Your task to perform on an android device: turn on data saver in the chrome app Image 0: 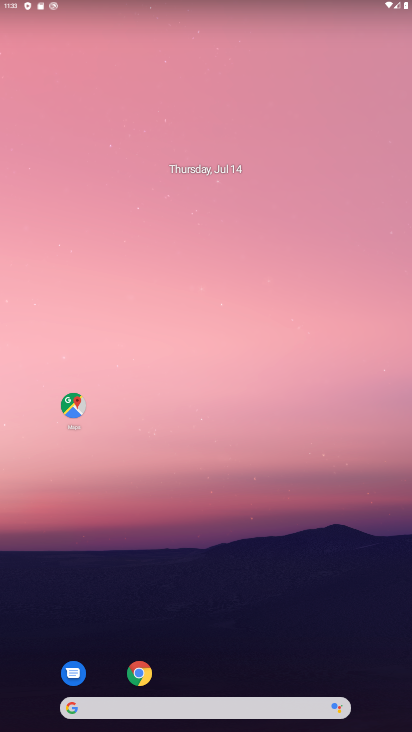
Step 0: click (137, 674)
Your task to perform on an android device: turn on data saver in the chrome app Image 1: 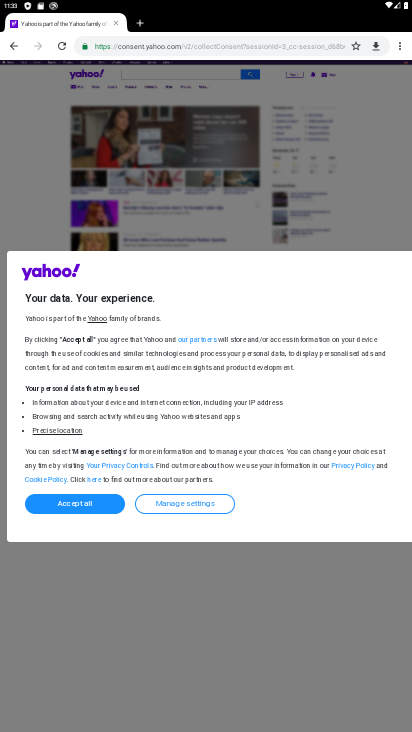
Step 1: click (406, 47)
Your task to perform on an android device: turn on data saver in the chrome app Image 2: 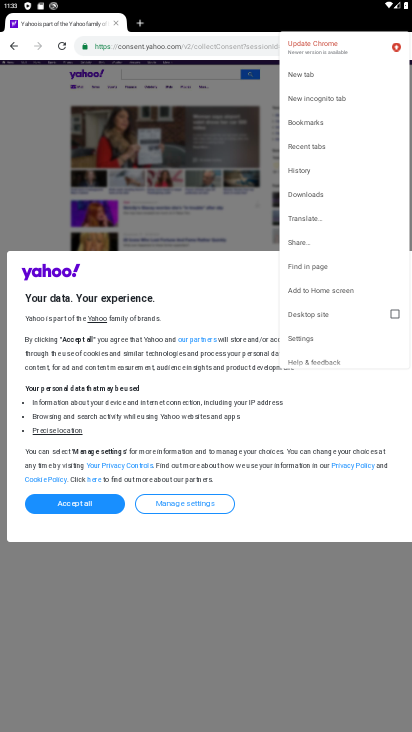
Step 2: click (304, 342)
Your task to perform on an android device: turn on data saver in the chrome app Image 3: 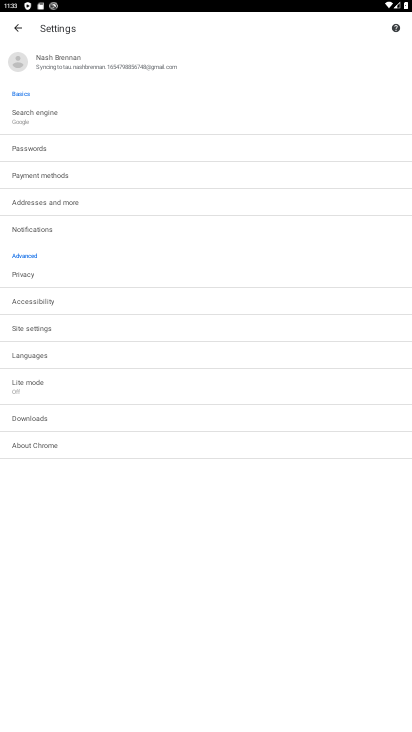
Step 3: click (48, 379)
Your task to perform on an android device: turn on data saver in the chrome app Image 4: 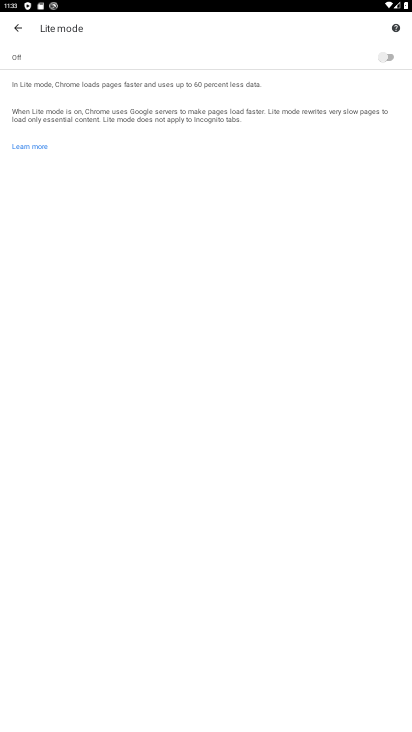
Step 4: click (380, 52)
Your task to perform on an android device: turn on data saver in the chrome app Image 5: 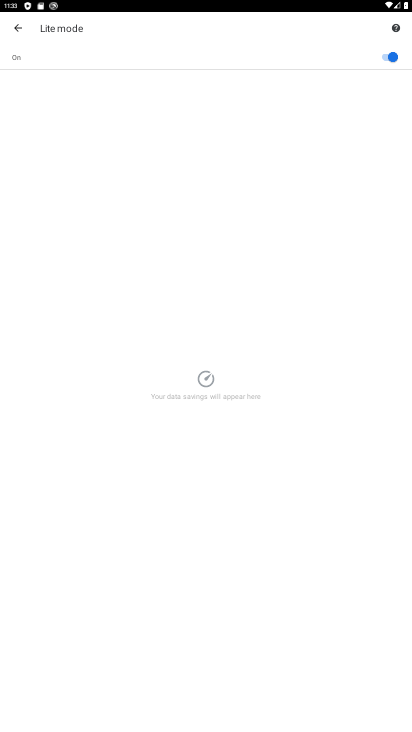
Step 5: task complete